Your task to perform on an android device: show emergency info Image 0: 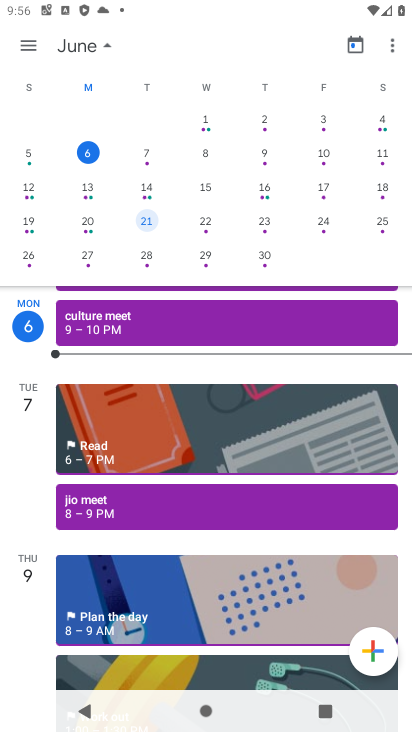
Step 0: press home button
Your task to perform on an android device: show emergency info Image 1: 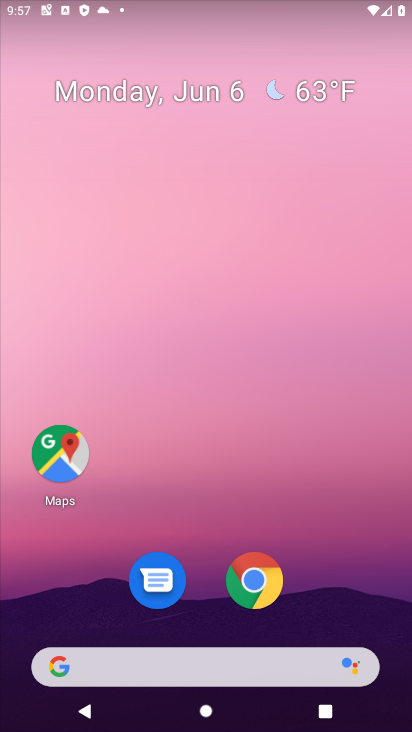
Step 1: drag from (378, 595) to (331, 0)
Your task to perform on an android device: show emergency info Image 2: 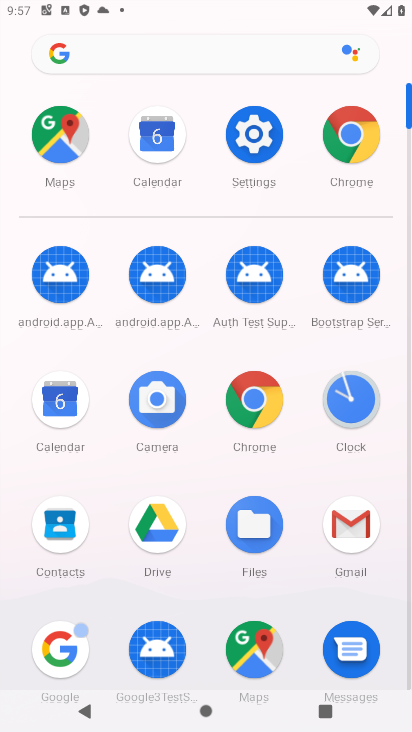
Step 2: click (266, 135)
Your task to perform on an android device: show emergency info Image 3: 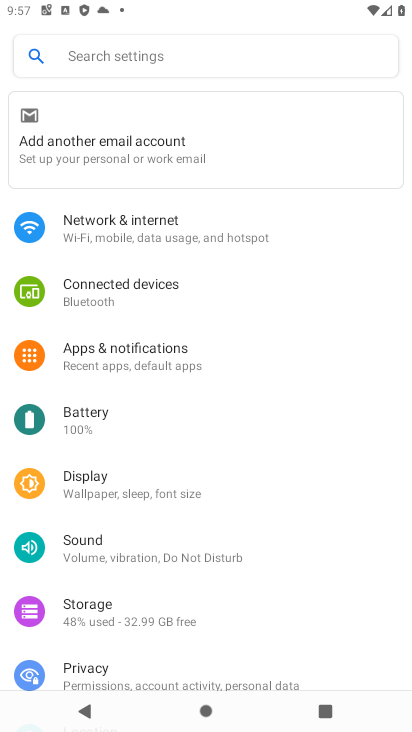
Step 3: drag from (177, 638) to (218, 70)
Your task to perform on an android device: show emergency info Image 4: 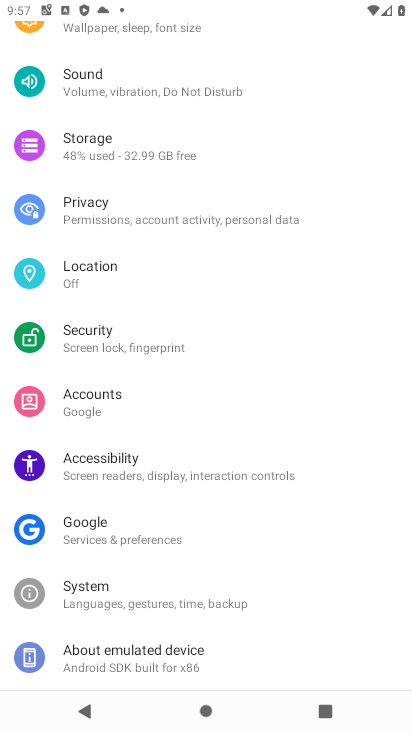
Step 4: drag from (156, 578) to (221, 18)
Your task to perform on an android device: show emergency info Image 5: 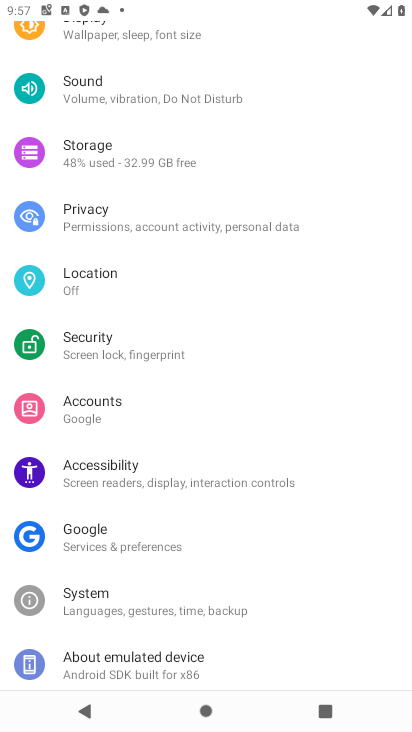
Step 5: click (137, 657)
Your task to perform on an android device: show emergency info Image 6: 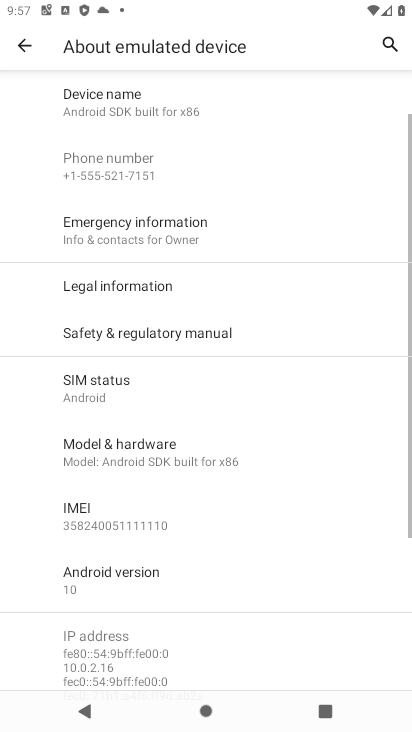
Step 6: click (89, 235)
Your task to perform on an android device: show emergency info Image 7: 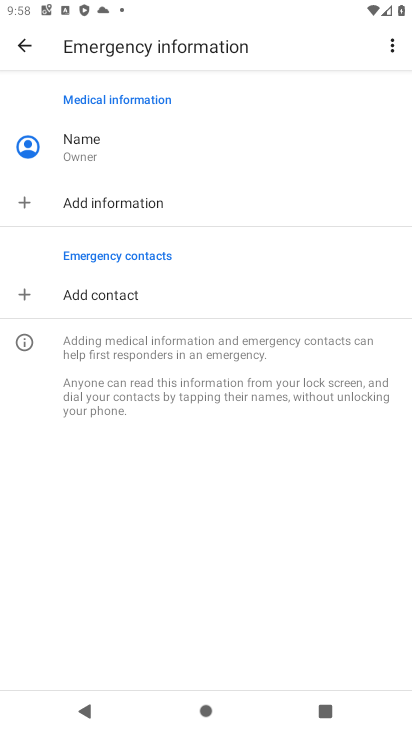
Step 7: task complete